Your task to perform on an android device: Go to privacy settings Image 0: 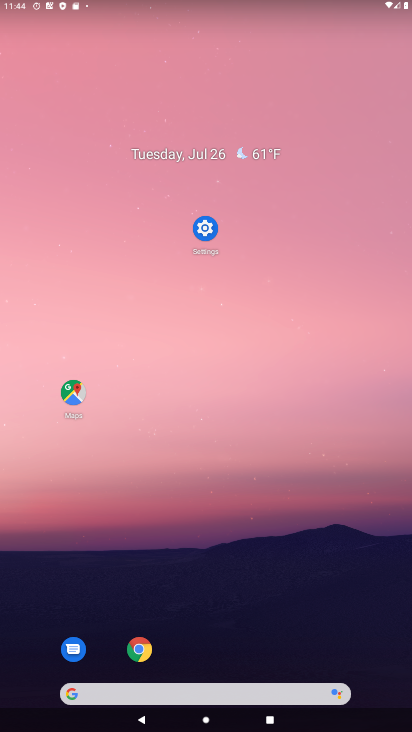
Step 0: click (162, 176)
Your task to perform on an android device: Go to privacy settings Image 1: 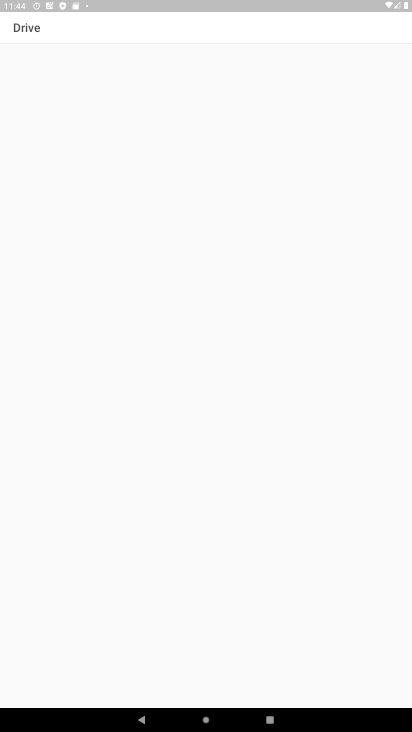
Step 1: click (156, 164)
Your task to perform on an android device: Go to privacy settings Image 2: 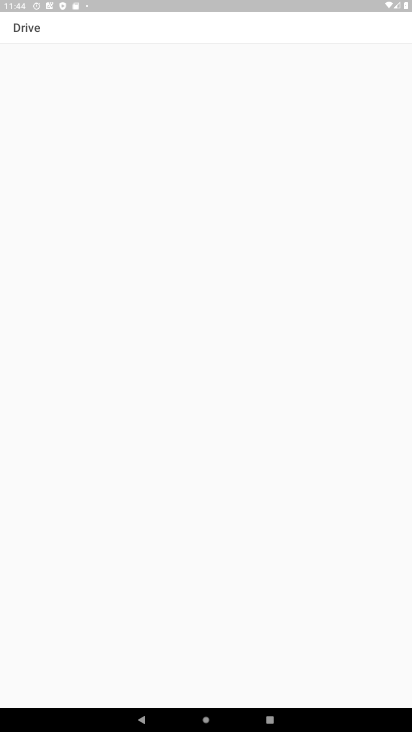
Step 2: click (201, 242)
Your task to perform on an android device: Go to privacy settings Image 3: 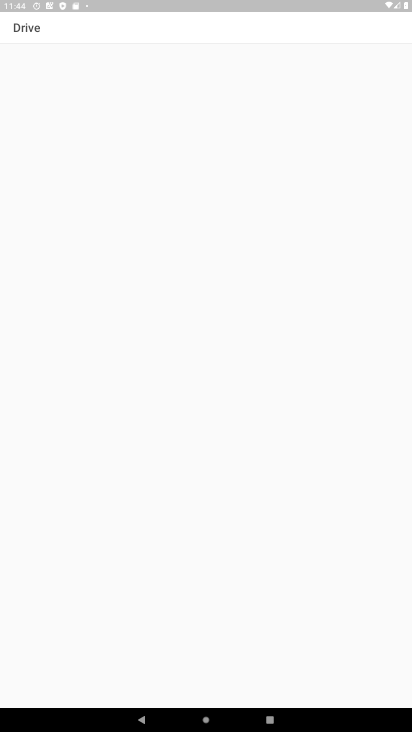
Step 3: drag from (243, 614) to (167, 82)
Your task to perform on an android device: Go to privacy settings Image 4: 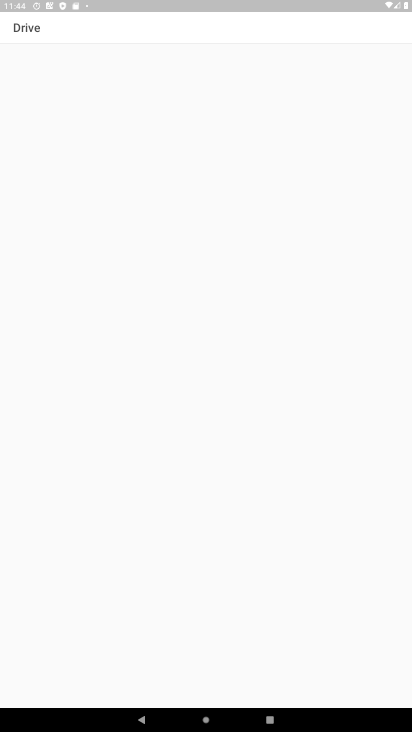
Step 4: drag from (274, 576) to (210, 47)
Your task to perform on an android device: Go to privacy settings Image 5: 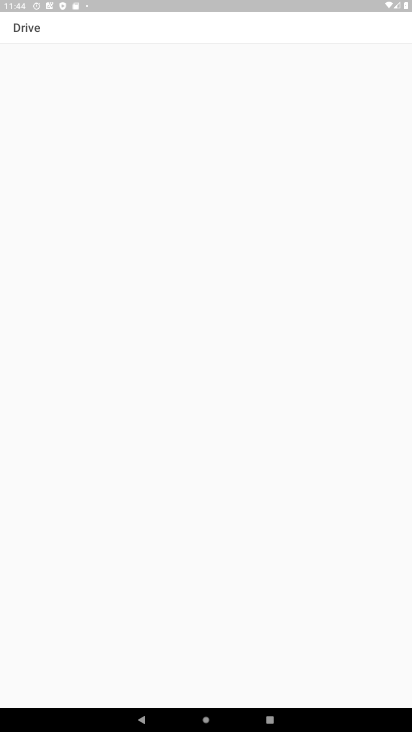
Step 5: drag from (251, 550) to (251, 78)
Your task to perform on an android device: Go to privacy settings Image 6: 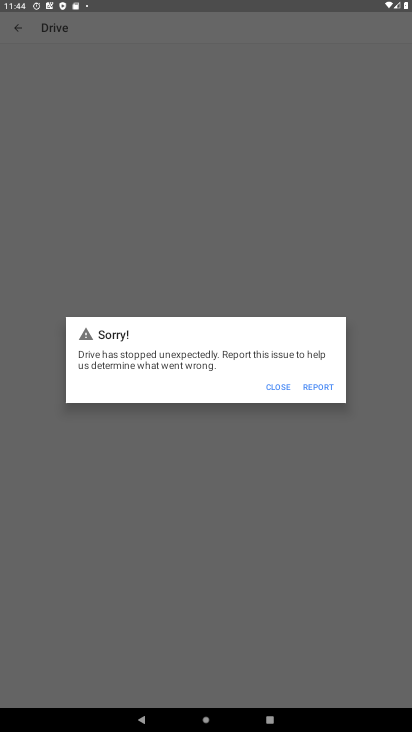
Step 6: drag from (317, 411) to (293, 47)
Your task to perform on an android device: Go to privacy settings Image 7: 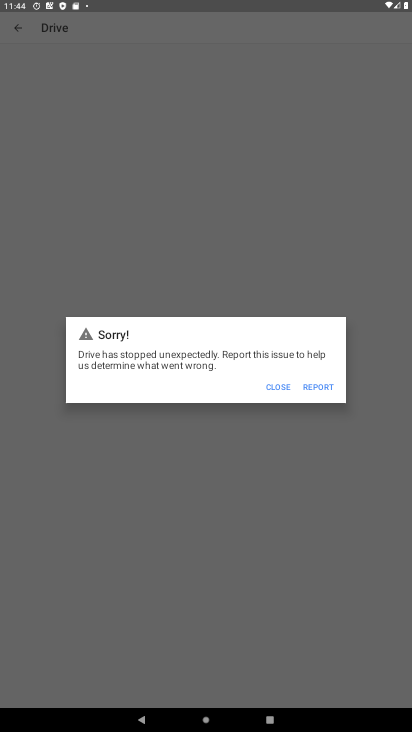
Step 7: drag from (269, 385) to (224, 94)
Your task to perform on an android device: Go to privacy settings Image 8: 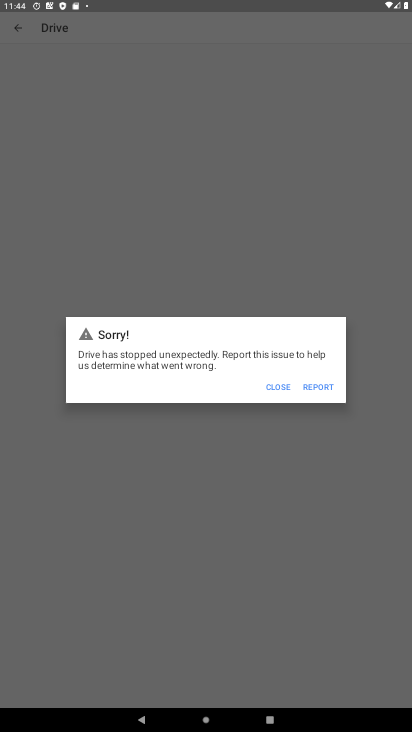
Step 8: click (278, 382)
Your task to perform on an android device: Go to privacy settings Image 9: 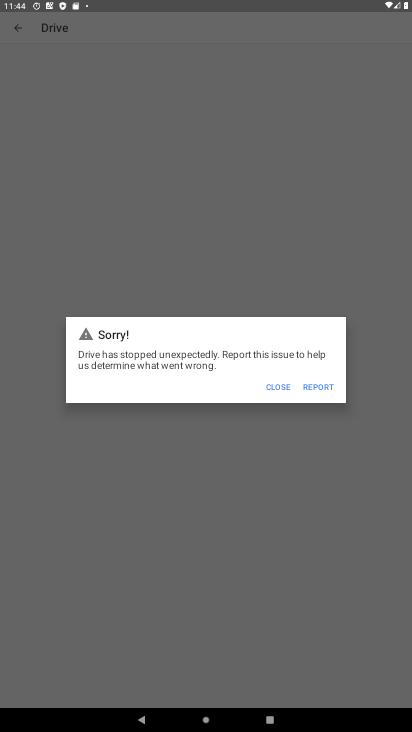
Step 9: click (278, 383)
Your task to perform on an android device: Go to privacy settings Image 10: 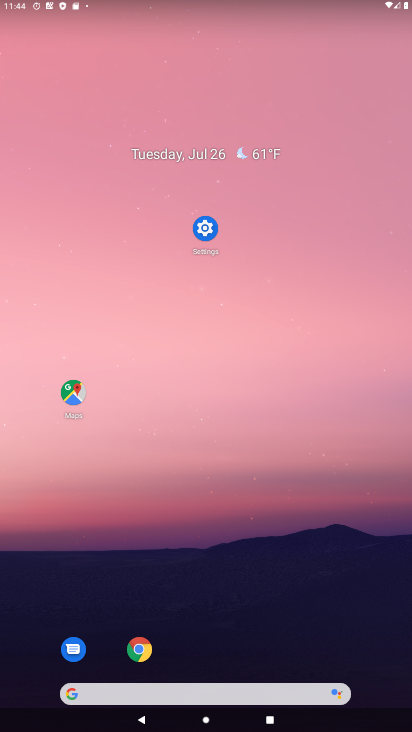
Step 10: drag from (294, 588) to (225, 13)
Your task to perform on an android device: Go to privacy settings Image 11: 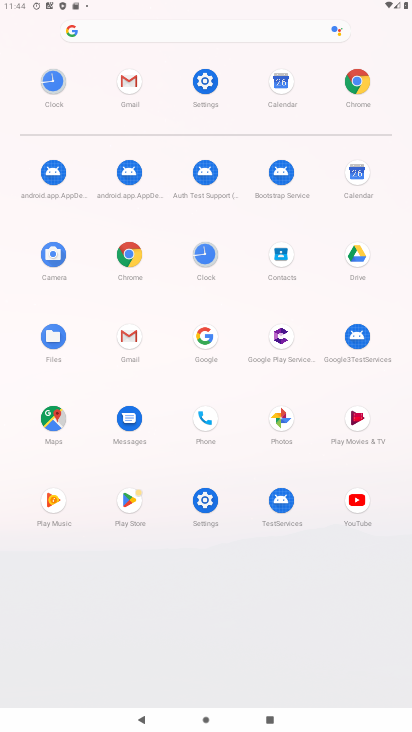
Step 11: click (206, 76)
Your task to perform on an android device: Go to privacy settings Image 12: 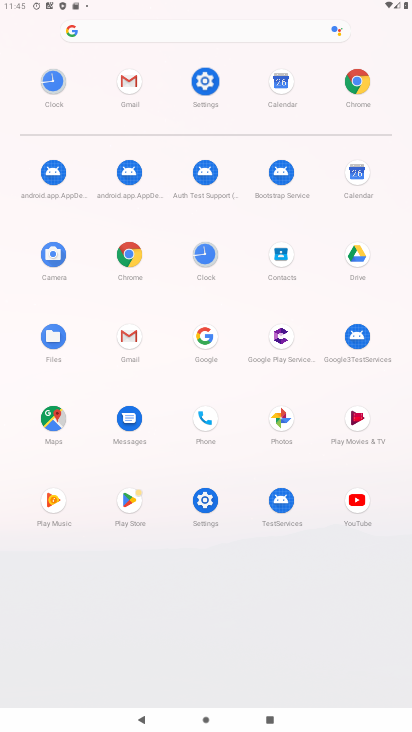
Step 12: click (198, 81)
Your task to perform on an android device: Go to privacy settings Image 13: 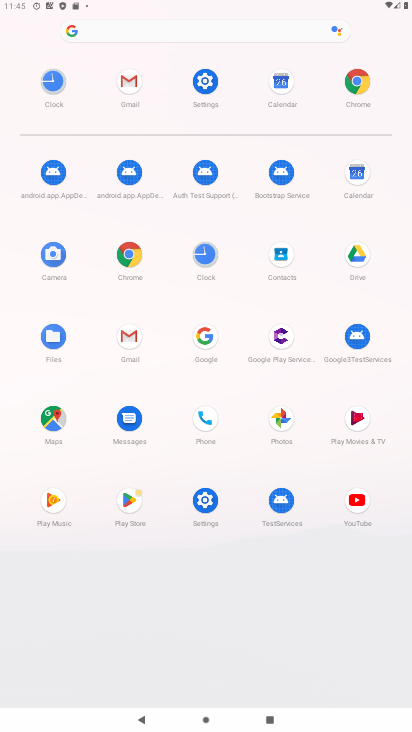
Step 13: click (212, 82)
Your task to perform on an android device: Go to privacy settings Image 14: 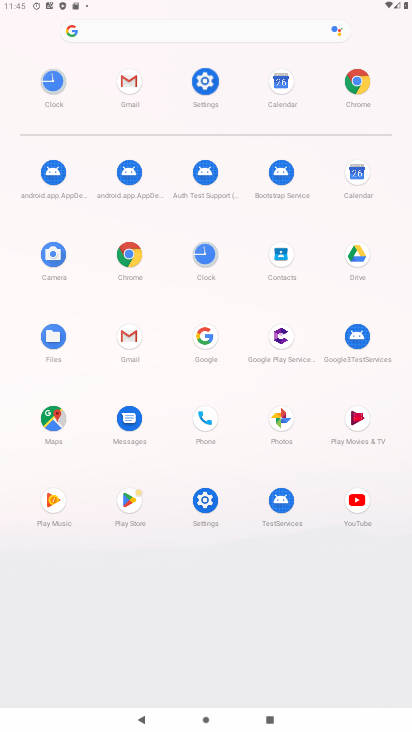
Step 14: click (204, 85)
Your task to perform on an android device: Go to privacy settings Image 15: 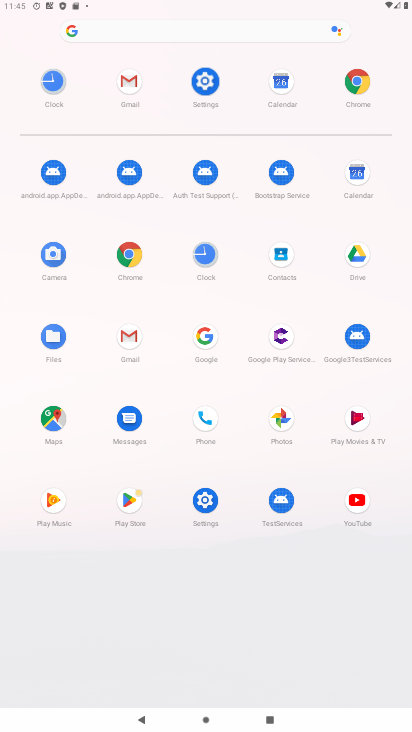
Step 15: click (202, 86)
Your task to perform on an android device: Go to privacy settings Image 16: 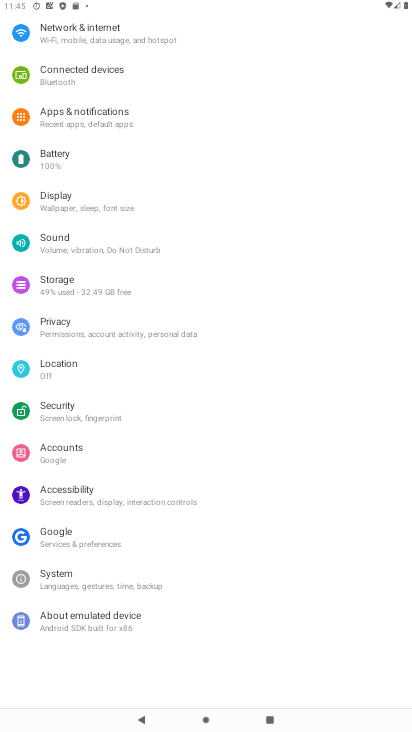
Step 16: click (198, 90)
Your task to perform on an android device: Go to privacy settings Image 17: 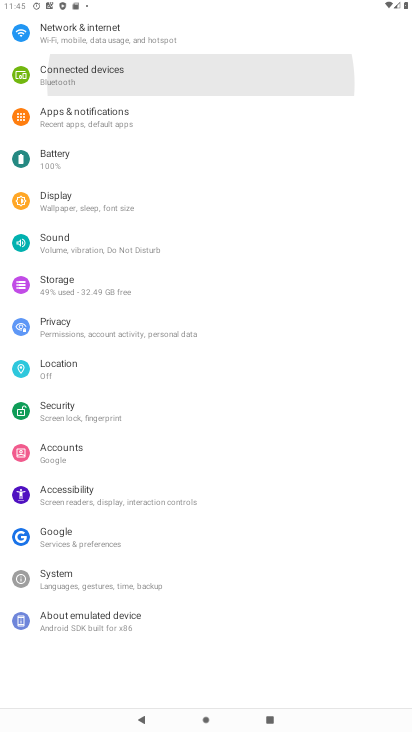
Step 17: click (197, 90)
Your task to perform on an android device: Go to privacy settings Image 18: 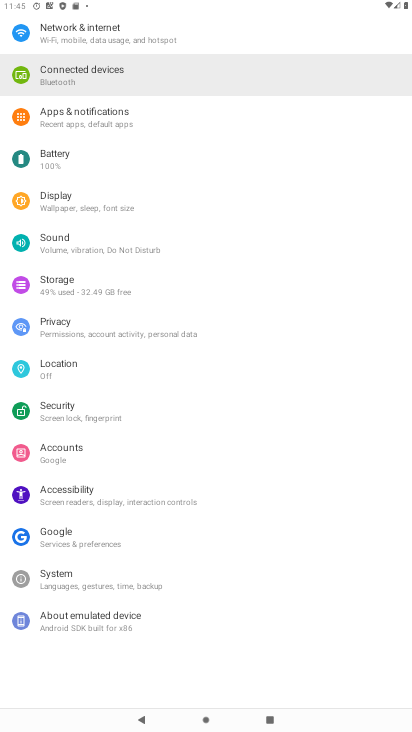
Step 18: click (197, 92)
Your task to perform on an android device: Go to privacy settings Image 19: 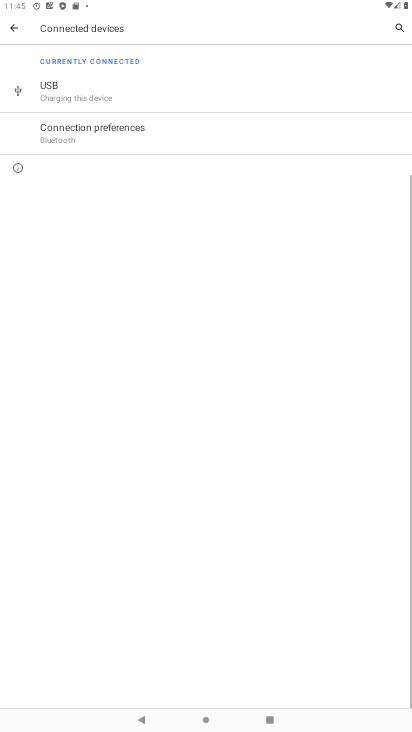
Step 19: click (23, 19)
Your task to perform on an android device: Go to privacy settings Image 20: 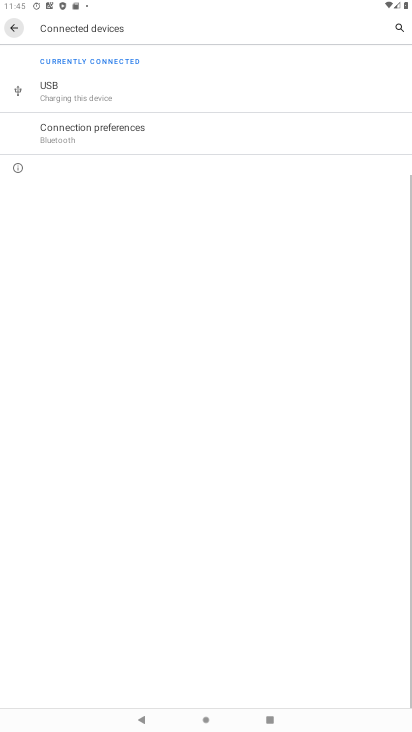
Step 20: click (24, 26)
Your task to perform on an android device: Go to privacy settings Image 21: 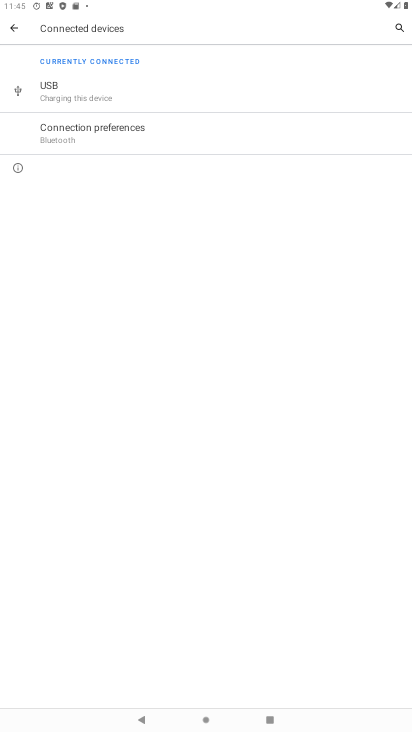
Step 21: click (17, 36)
Your task to perform on an android device: Go to privacy settings Image 22: 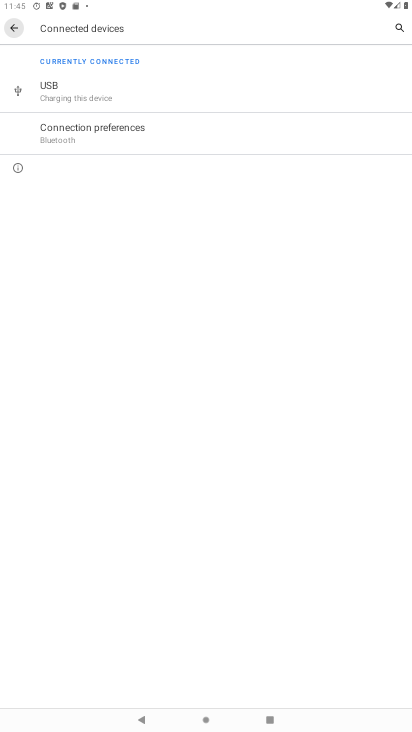
Step 22: click (19, 34)
Your task to perform on an android device: Go to privacy settings Image 23: 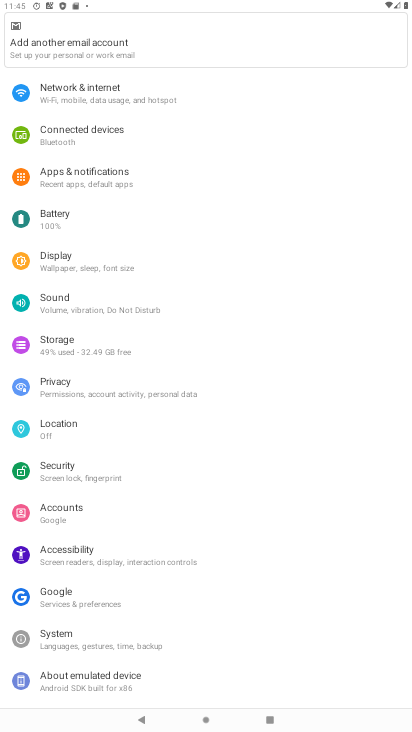
Step 23: click (64, 386)
Your task to perform on an android device: Go to privacy settings Image 24: 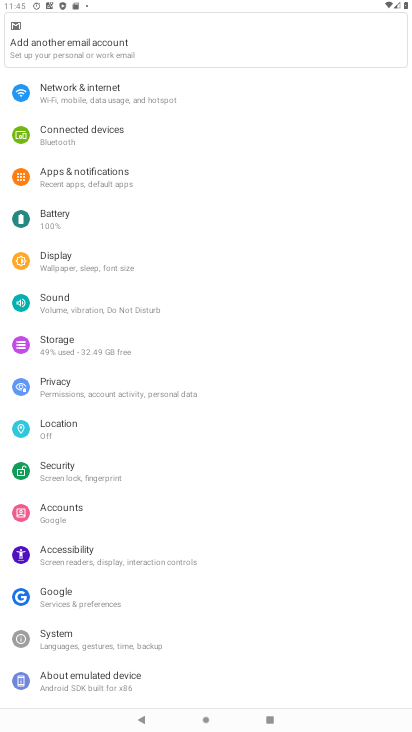
Step 24: click (66, 382)
Your task to perform on an android device: Go to privacy settings Image 25: 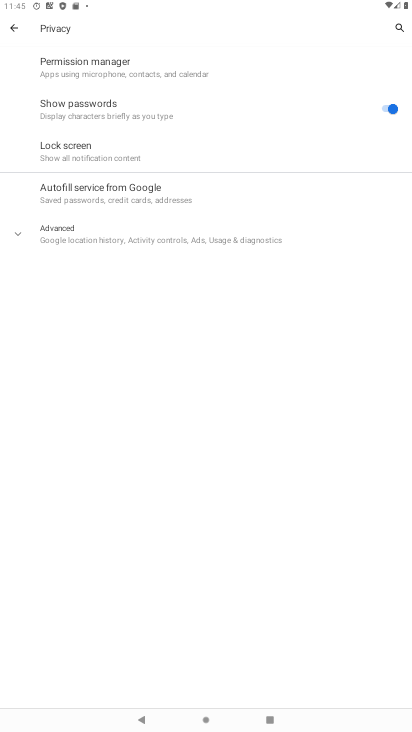
Step 25: task complete